Your task to perform on an android device: Go to internet settings Image 0: 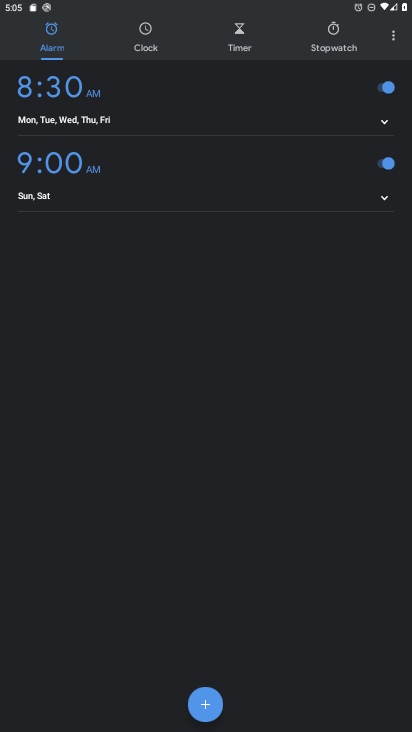
Step 0: press home button
Your task to perform on an android device: Go to internet settings Image 1: 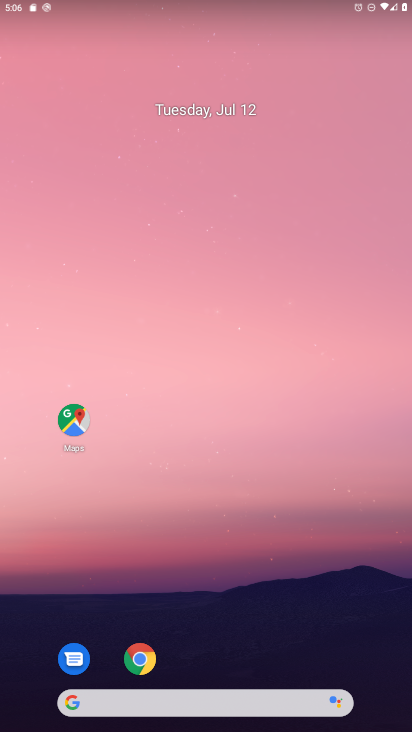
Step 1: drag from (0, 0) to (412, 180)
Your task to perform on an android device: Go to internet settings Image 2: 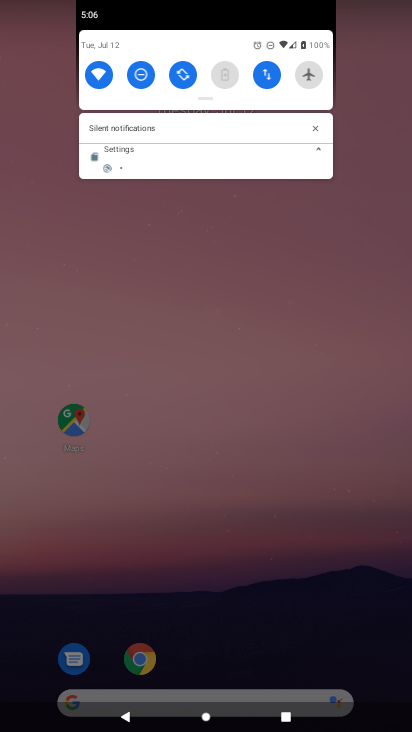
Step 2: press home button
Your task to perform on an android device: Go to internet settings Image 3: 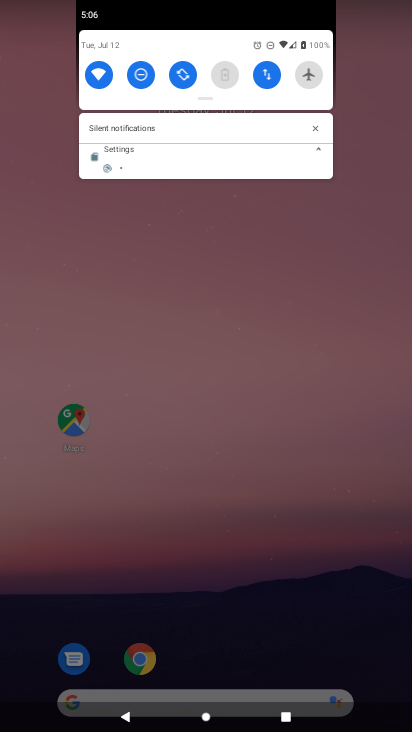
Step 3: drag from (412, 180) to (363, 507)
Your task to perform on an android device: Go to internet settings Image 4: 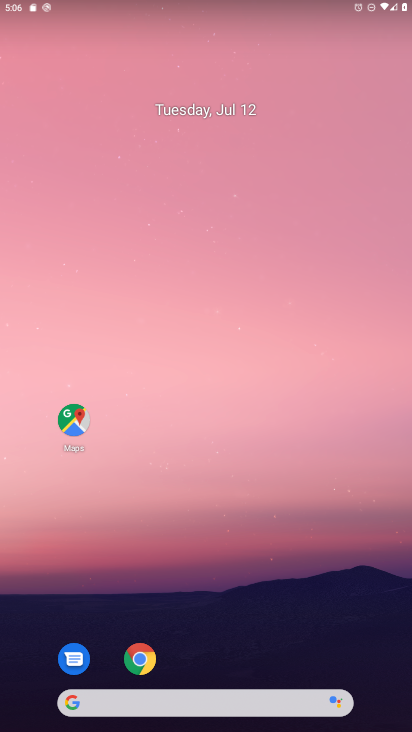
Step 4: drag from (242, 336) to (248, 274)
Your task to perform on an android device: Go to internet settings Image 5: 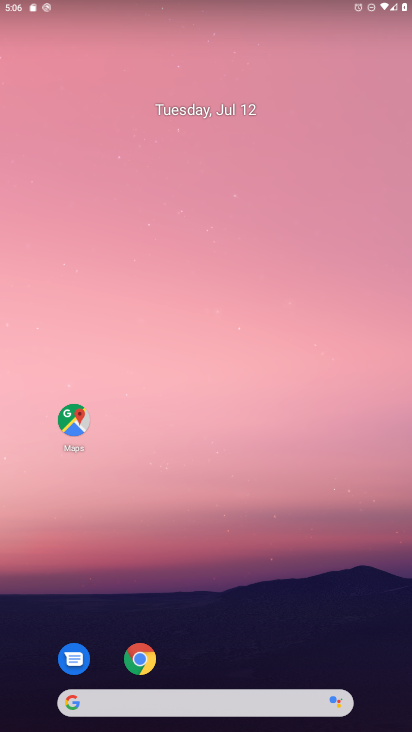
Step 5: drag from (186, 604) to (235, 31)
Your task to perform on an android device: Go to internet settings Image 6: 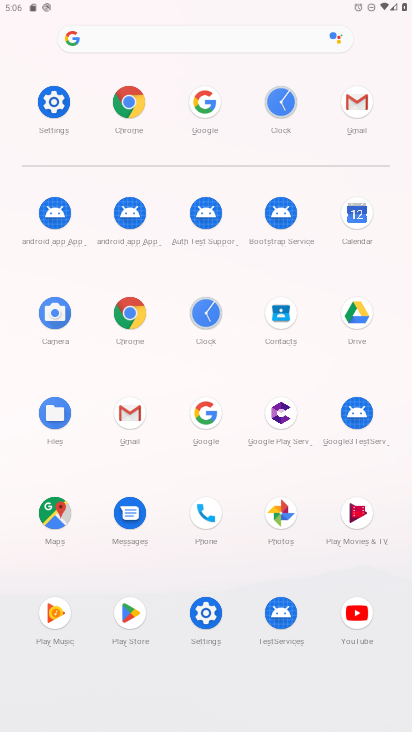
Step 6: click (56, 98)
Your task to perform on an android device: Go to internet settings Image 7: 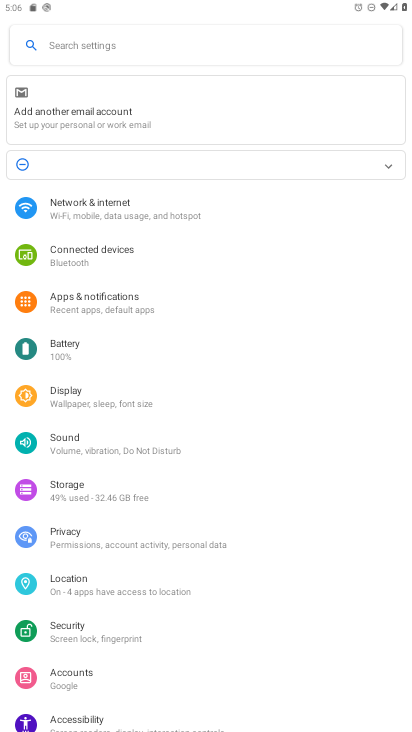
Step 7: click (75, 205)
Your task to perform on an android device: Go to internet settings Image 8: 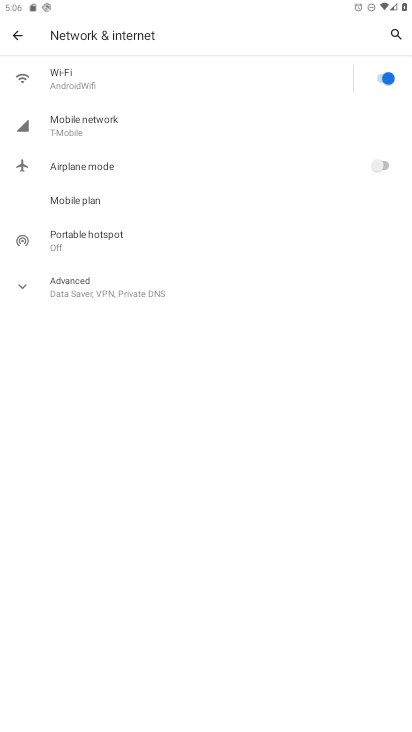
Step 8: task complete